Your task to perform on an android device: change keyboard looks Image 0: 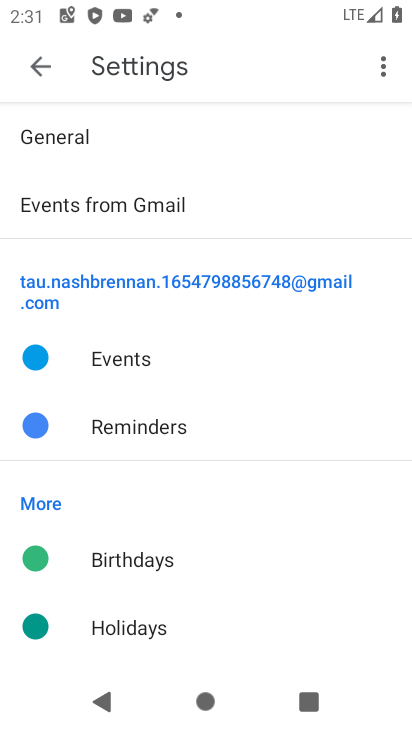
Step 0: press home button
Your task to perform on an android device: change keyboard looks Image 1: 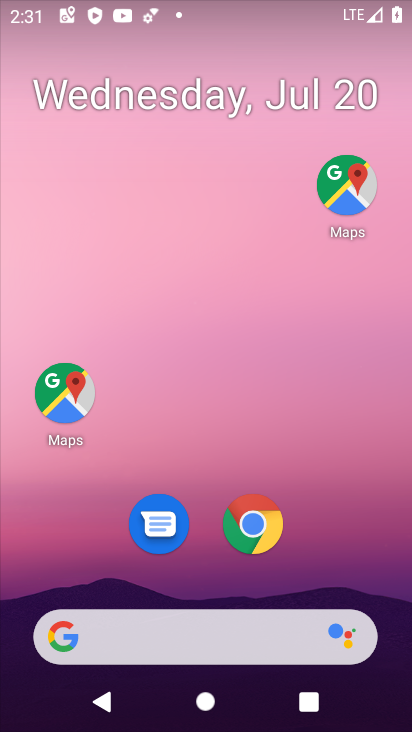
Step 1: drag from (338, 487) to (340, 162)
Your task to perform on an android device: change keyboard looks Image 2: 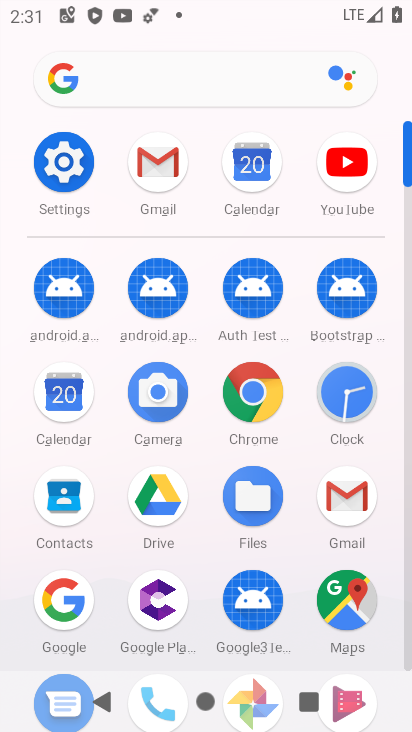
Step 2: click (74, 167)
Your task to perform on an android device: change keyboard looks Image 3: 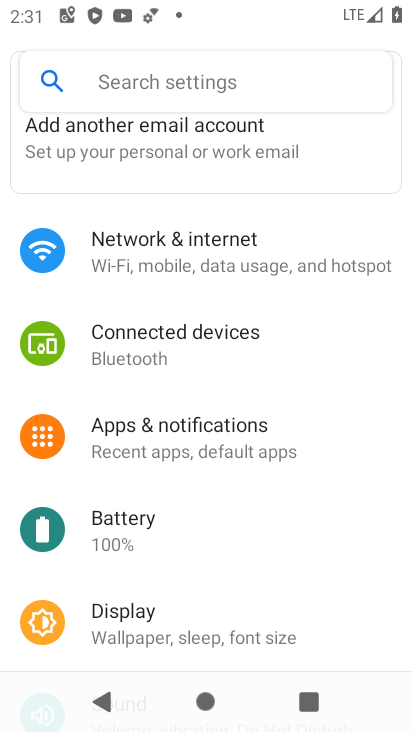
Step 3: drag from (216, 592) to (315, 100)
Your task to perform on an android device: change keyboard looks Image 4: 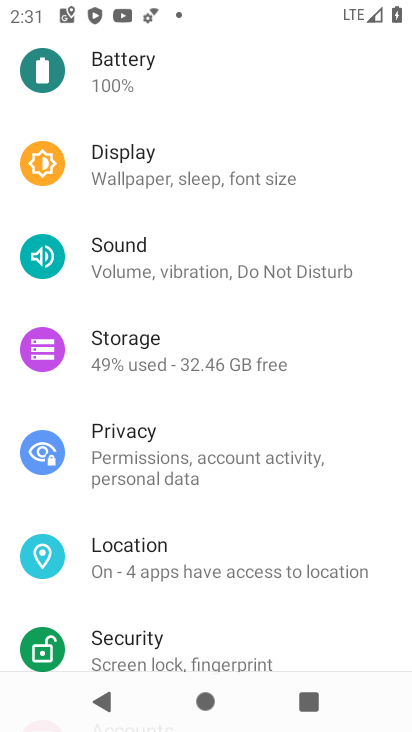
Step 4: drag from (258, 604) to (299, 74)
Your task to perform on an android device: change keyboard looks Image 5: 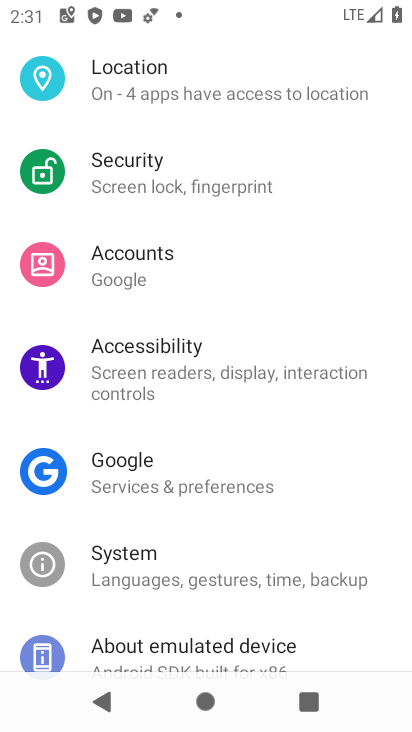
Step 5: click (234, 562)
Your task to perform on an android device: change keyboard looks Image 6: 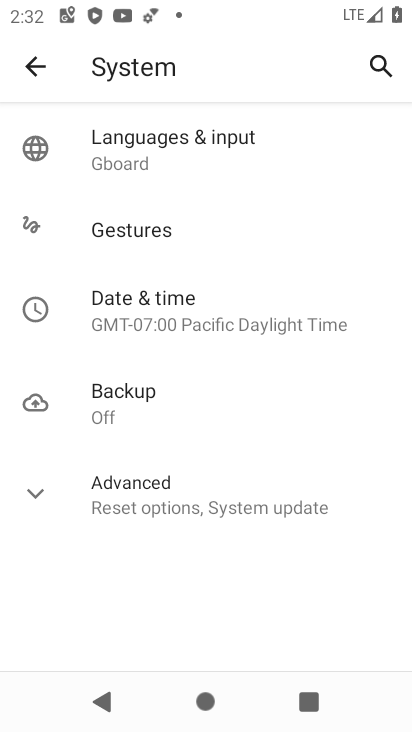
Step 6: click (192, 155)
Your task to perform on an android device: change keyboard looks Image 7: 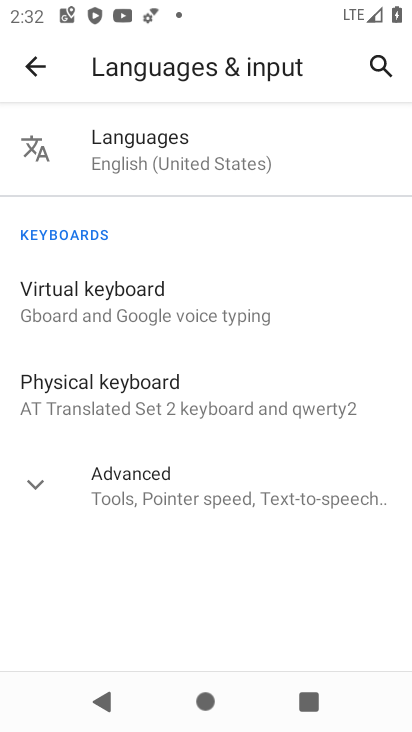
Step 7: click (120, 291)
Your task to perform on an android device: change keyboard looks Image 8: 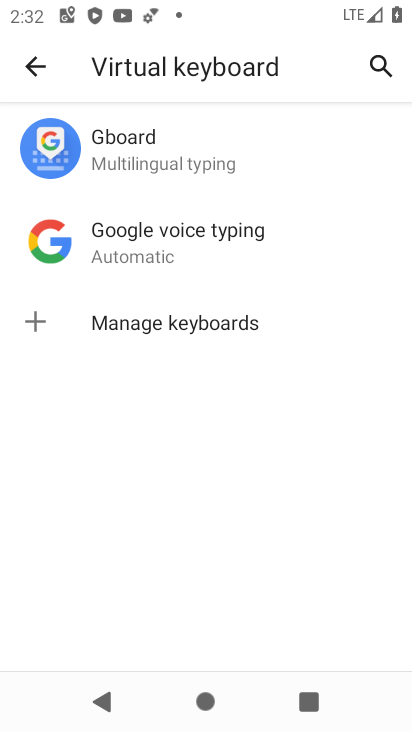
Step 8: click (171, 153)
Your task to perform on an android device: change keyboard looks Image 9: 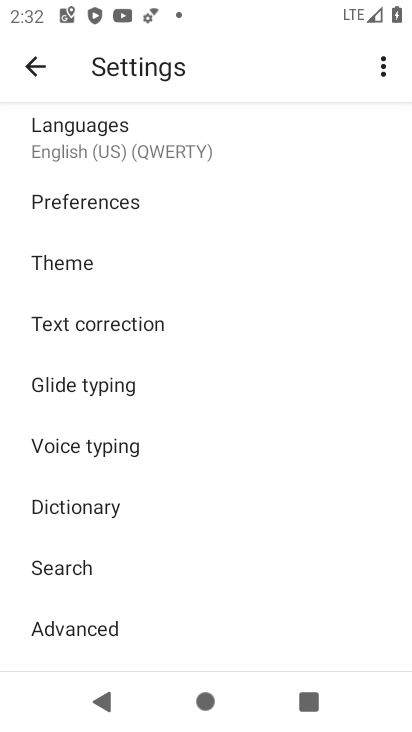
Step 9: click (83, 256)
Your task to perform on an android device: change keyboard looks Image 10: 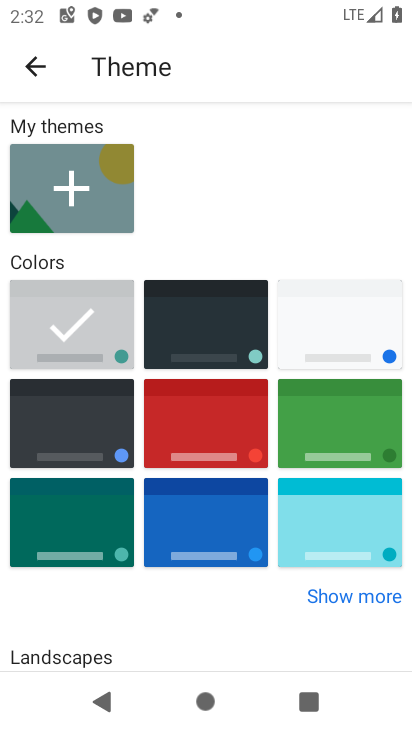
Step 10: click (199, 410)
Your task to perform on an android device: change keyboard looks Image 11: 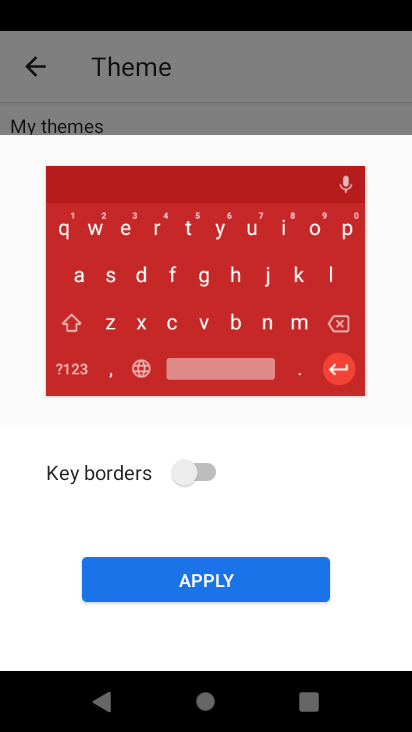
Step 11: click (207, 468)
Your task to perform on an android device: change keyboard looks Image 12: 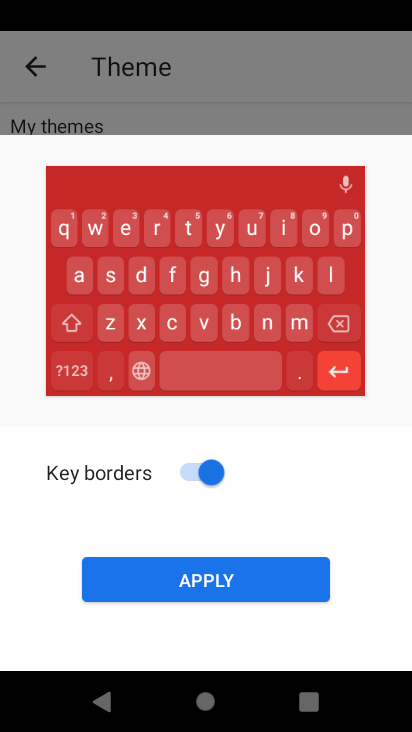
Step 12: click (200, 586)
Your task to perform on an android device: change keyboard looks Image 13: 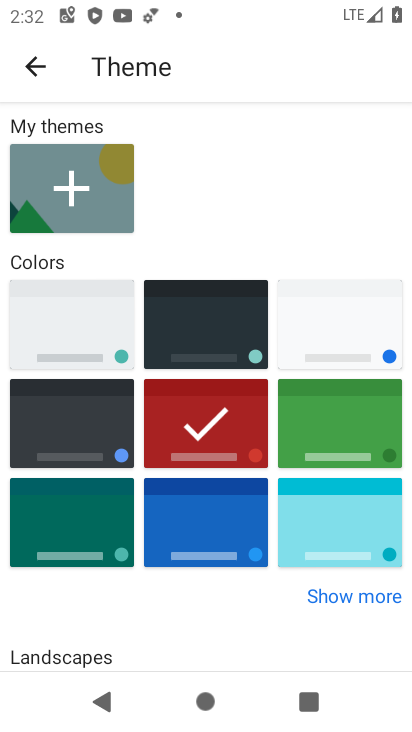
Step 13: task complete